Your task to perform on an android device: toggle wifi Image 0: 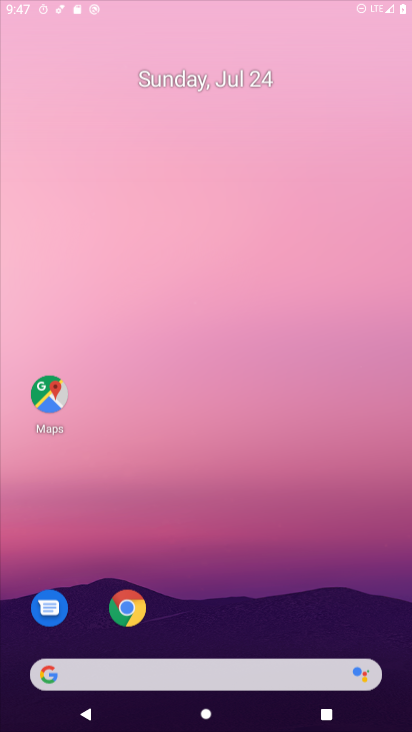
Step 0: click (213, 210)
Your task to perform on an android device: toggle wifi Image 1: 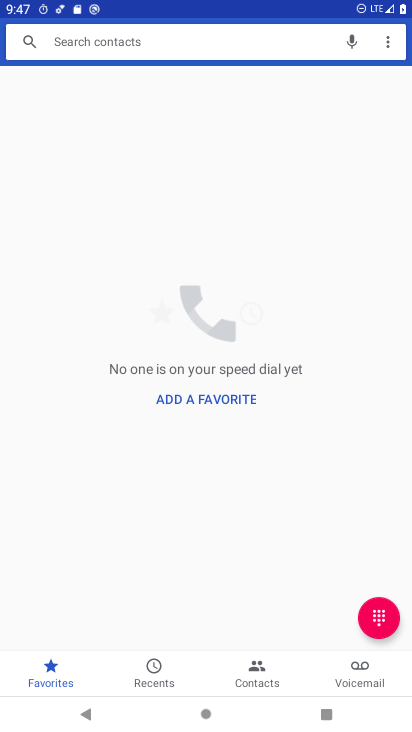
Step 1: press home button
Your task to perform on an android device: toggle wifi Image 2: 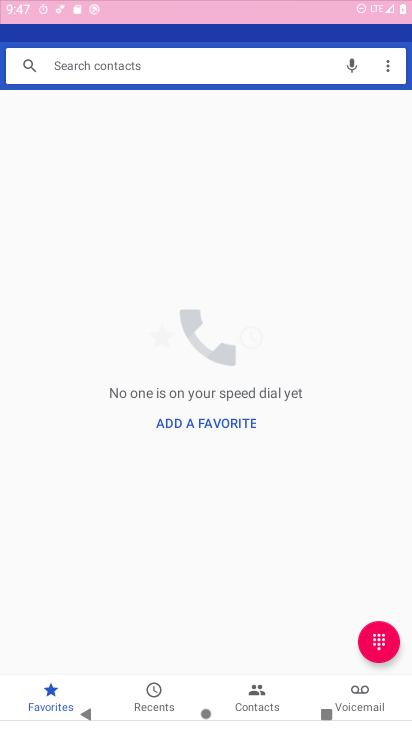
Step 2: drag from (118, 559) to (173, 50)
Your task to perform on an android device: toggle wifi Image 3: 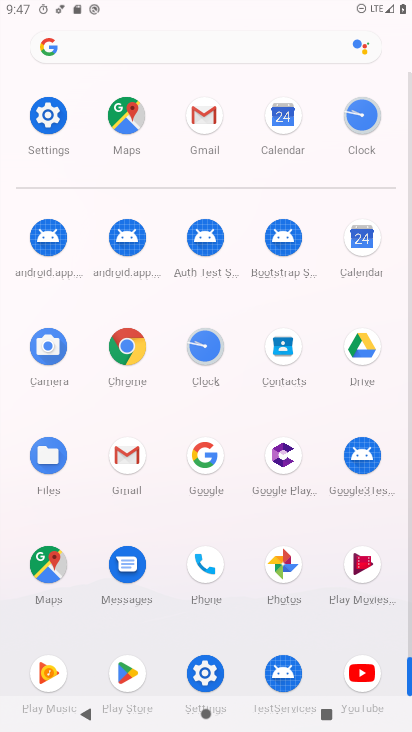
Step 3: click (202, 674)
Your task to perform on an android device: toggle wifi Image 4: 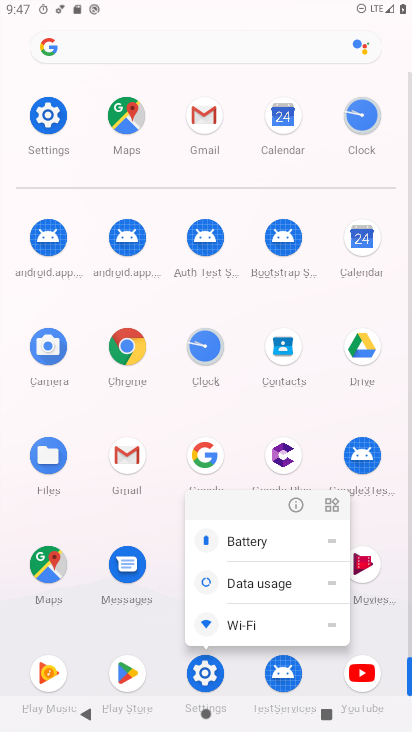
Step 4: click (286, 503)
Your task to perform on an android device: toggle wifi Image 5: 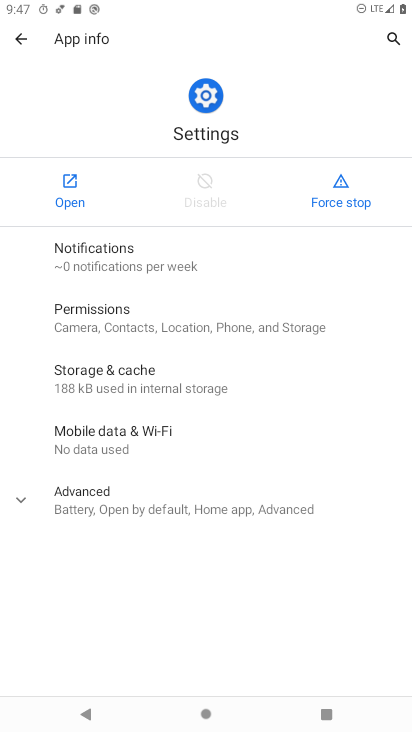
Step 5: click (42, 198)
Your task to perform on an android device: toggle wifi Image 6: 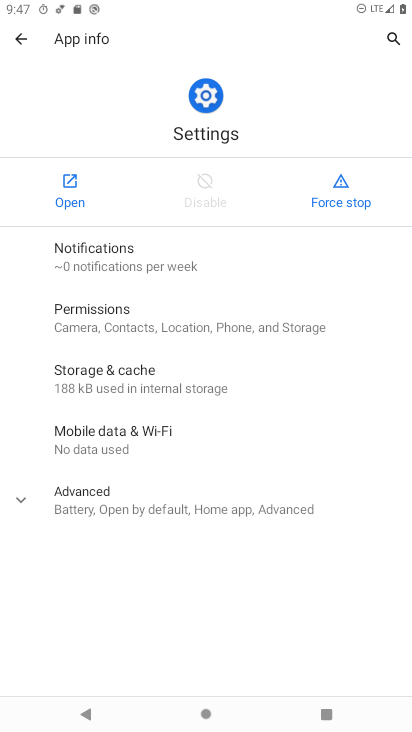
Step 6: click (42, 198)
Your task to perform on an android device: toggle wifi Image 7: 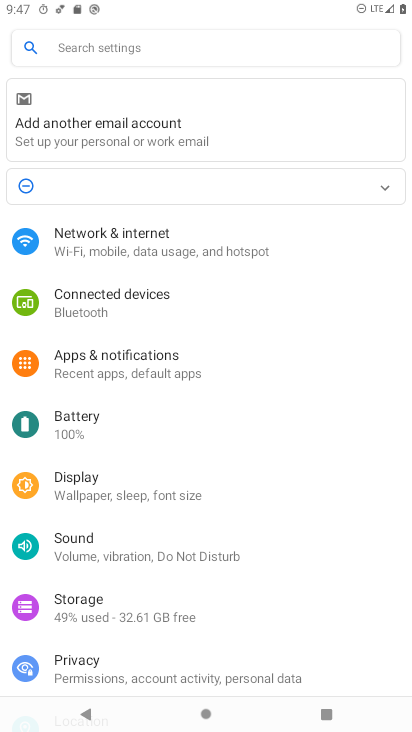
Step 7: click (137, 247)
Your task to perform on an android device: toggle wifi Image 8: 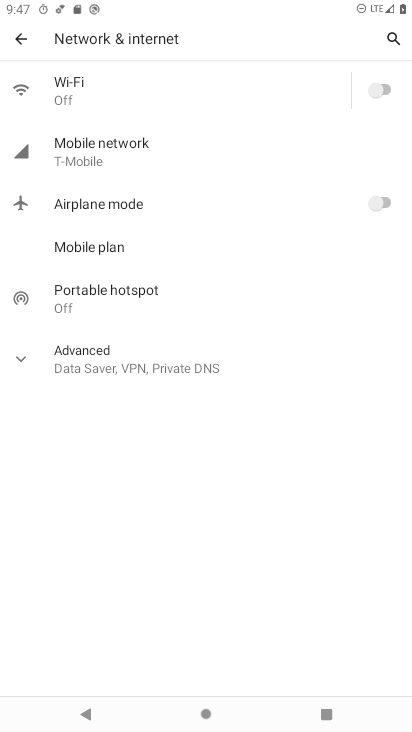
Step 8: drag from (154, 589) to (191, 331)
Your task to perform on an android device: toggle wifi Image 9: 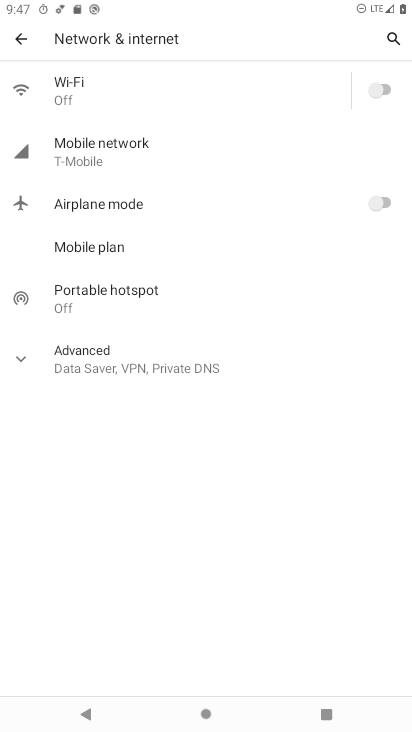
Step 9: drag from (153, 566) to (155, 398)
Your task to perform on an android device: toggle wifi Image 10: 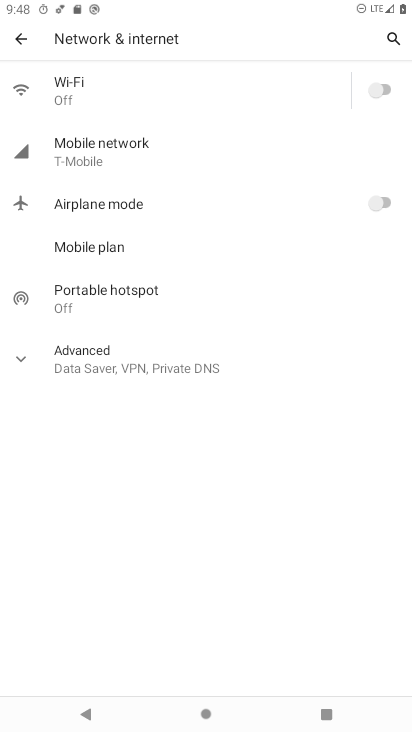
Step 10: drag from (179, 543) to (185, 244)
Your task to perform on an android device: toggle wifi Image 11: 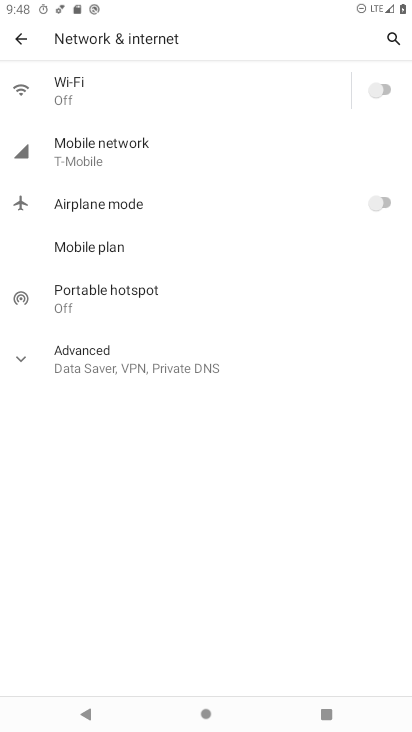
Step 11: click (138, 76)
Your task to perform on an android device: toggle wifi Image 12: 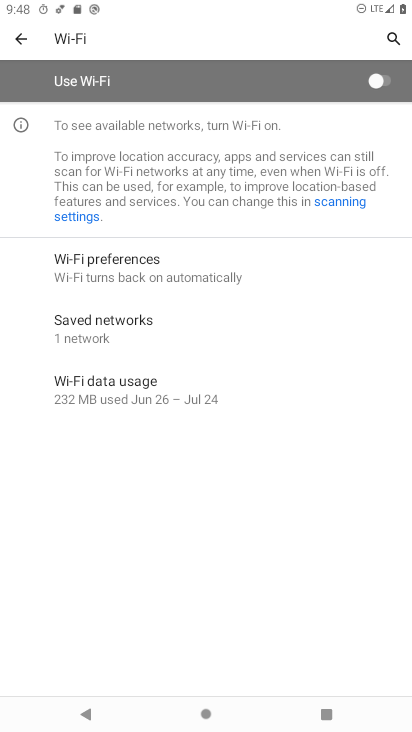
Step 12: click (361, 90)
Your task to perform on an android device: toggle wifi Image 13: 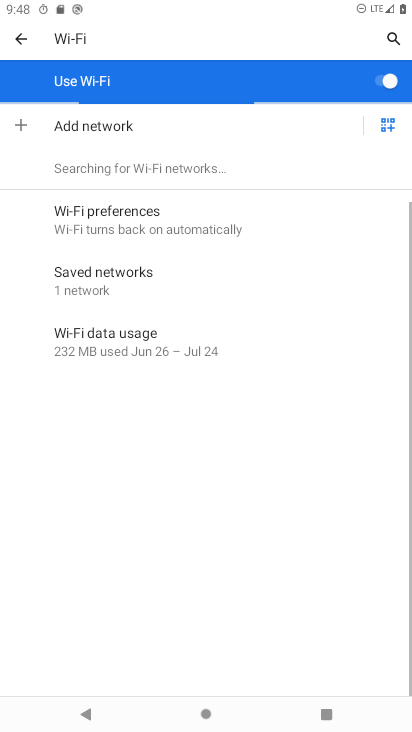
Step 13: task complete